Your task to perform on an android device: Set an alarm for 2pm Image 0: 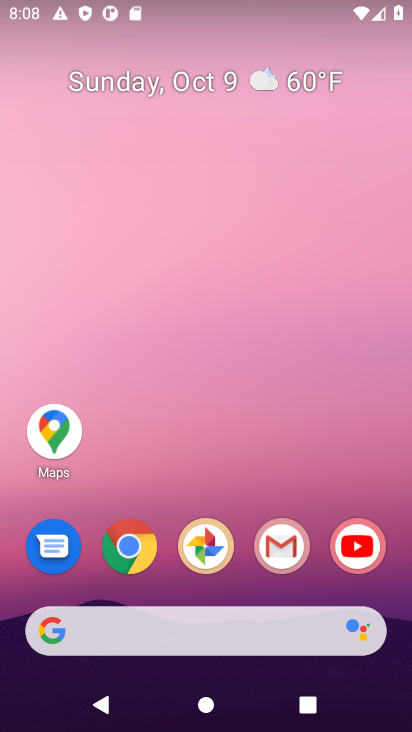
Step 0: click (127, 549)
Your task to perform on an android device: Set an alarm for 2pm Image 1: 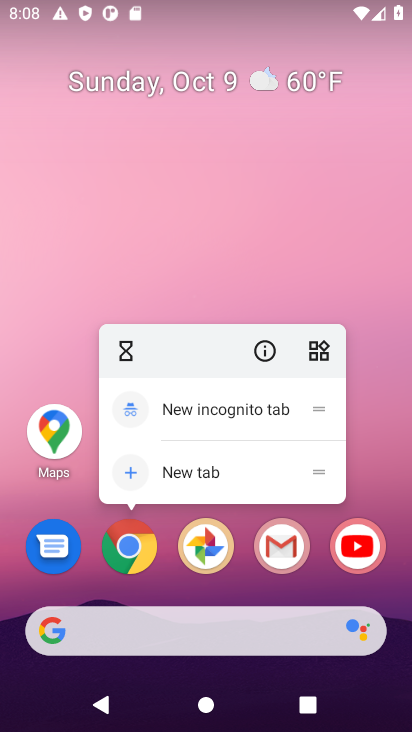
Step 1: click (395, 400)
Your task to perform on an android device: Set an alarm for 2pm Image 2: 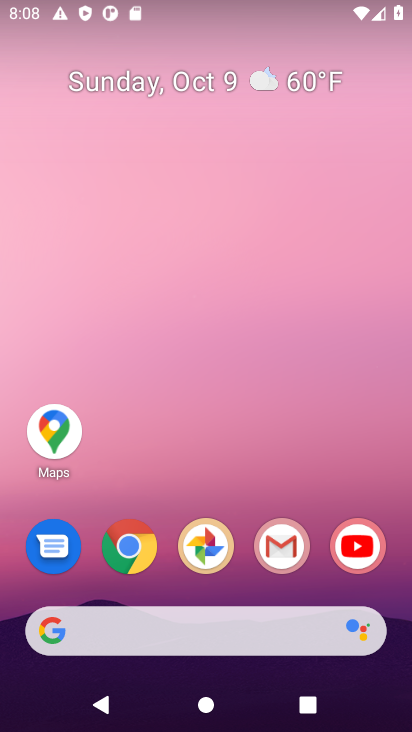
Step 2: drag from (234, 479) to (250, 60)
Your task to perform on an android device: Set an alarm for 2pm Image 3: 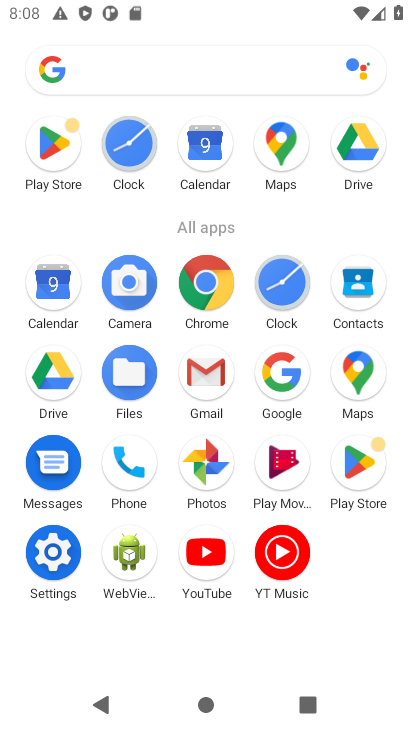
Step 3: click (117, 157)
Your task to perform on an android device: Set an alarm for 2pm Image 4: 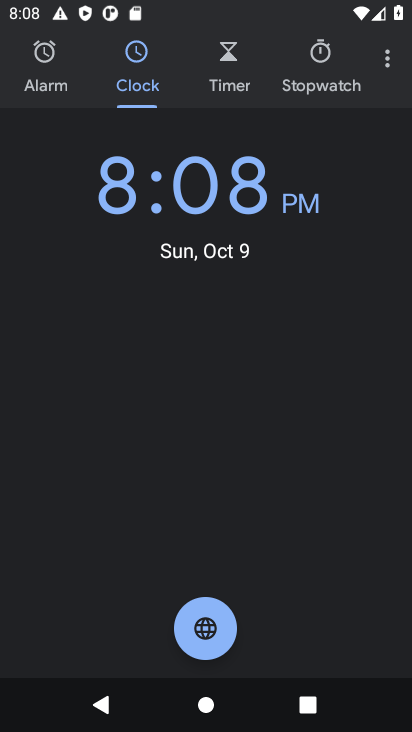
Step 4: click (64, 65)
Your task to perform on an android device: Set an alarm for 2pm Image 5: 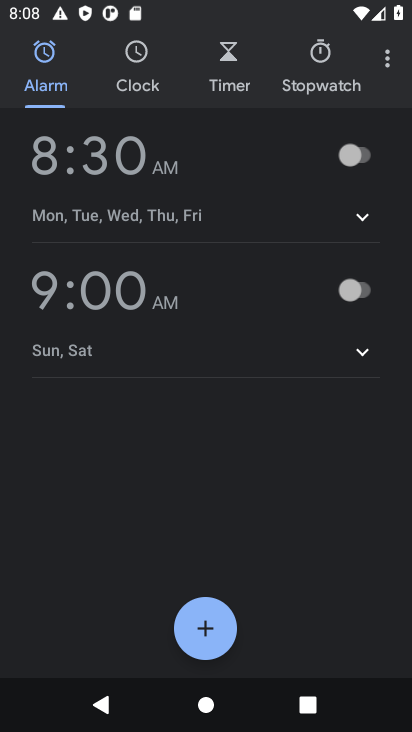
Step 5: click (42, 169)
Your task to perform on an android device: Set an alarm for 2pm Image 6: 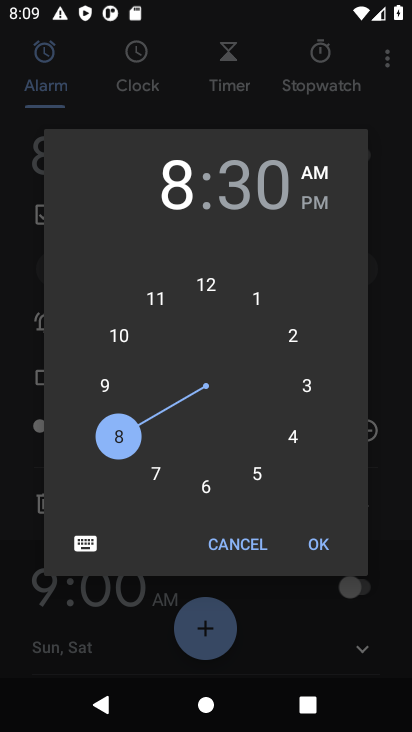
Step 6: click (288, 335)
Your task to perform on an android device: Set an alarm for 2pm Image 7: 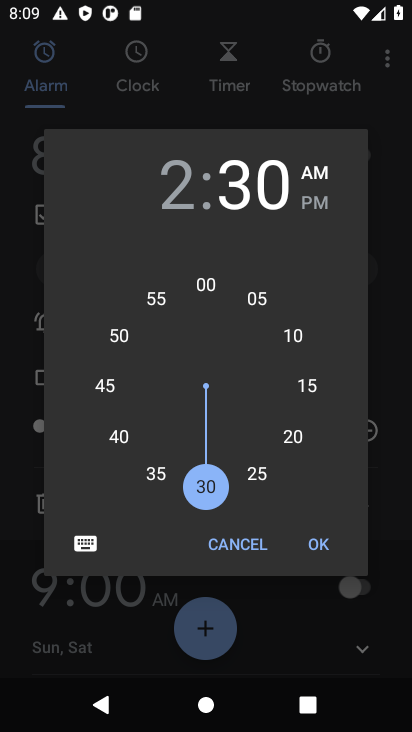
Step 7: click (204, 280)
Your task to perform on an android device: Set an alarm for 2pm Image 8: 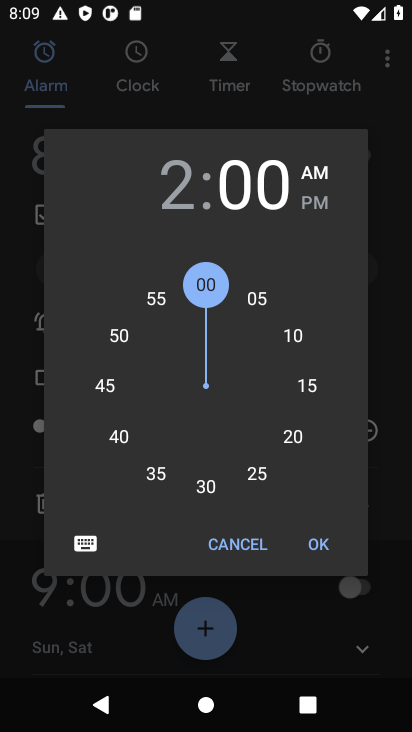
Step 8: click (314, 197)
Your task to perform on an android device: Set an alarm for 2pm Image 9: 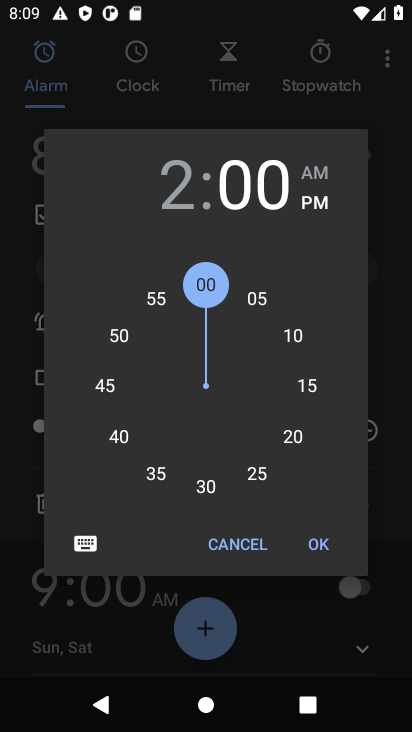
Step 9: click (167, 294)
Your task to perform on an android device: Set an alarm for 2pm Image 10: 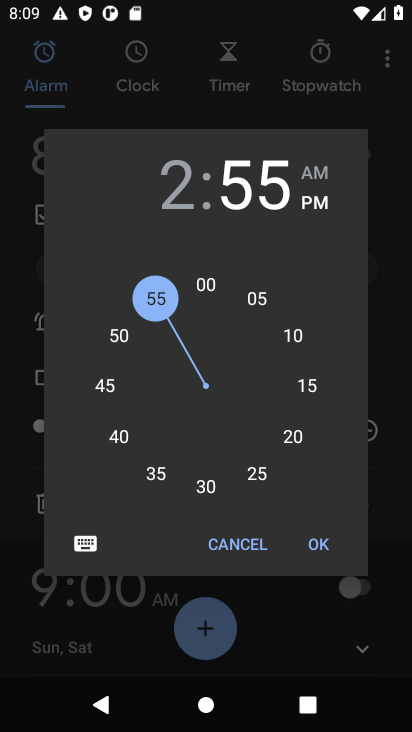
Step 10: click (189, 284)
Your task to perform on an android device: Set an alarm for 2pm Image 11: 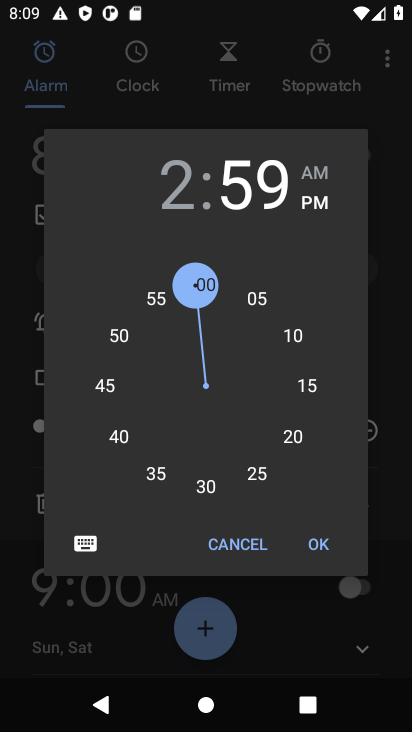
Step 11: click (315, 535)
Your task to perform on an android device: Set an alarm for 2pm Image 12: 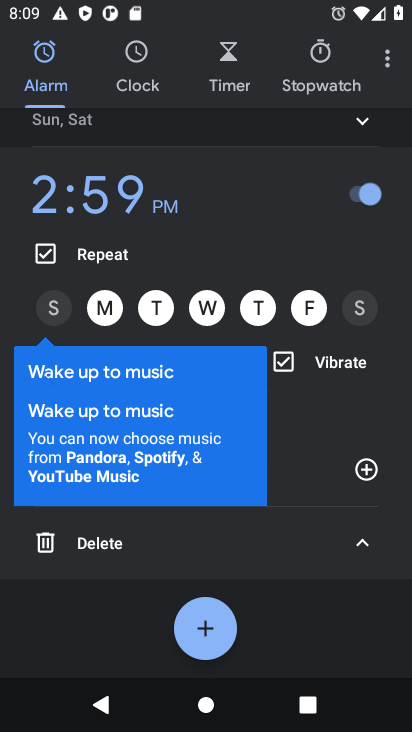
Step 12: click (296, 413)
Your task to perform on an android device: Set an alarm for 2pm Image 13: 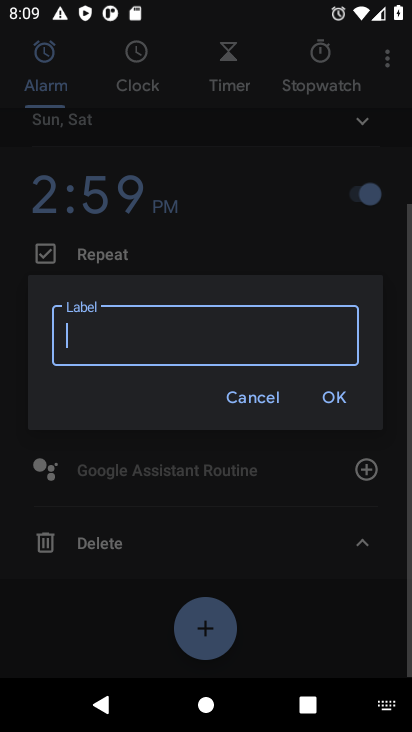
Step 13: click (262, 401)
Your task to perform on an android device: Set an alarm for 2pm Image 14: 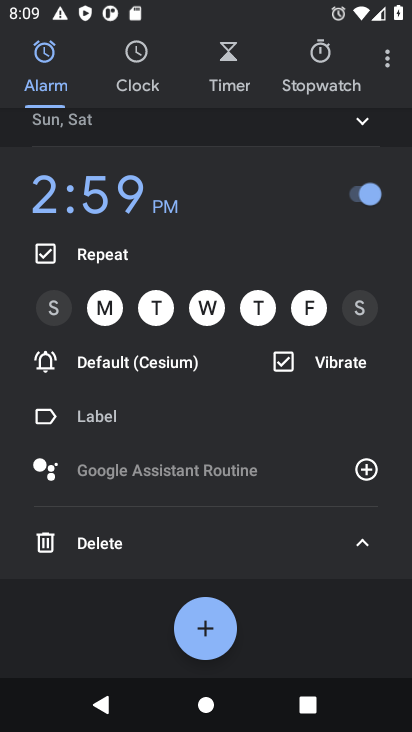
Step 14: click (368, 548)
Your task to perform on an android device: Set an alarm for 2pm Image 15: 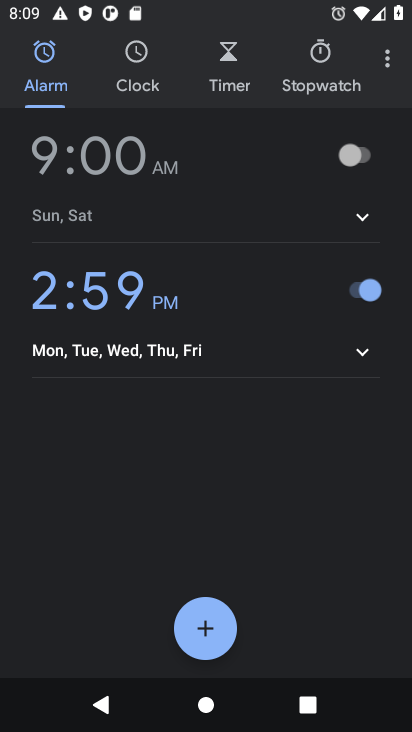
Step 15: click (336, 480)
Your task to perform on an android device: Set an alarm for 2pm Image 16: 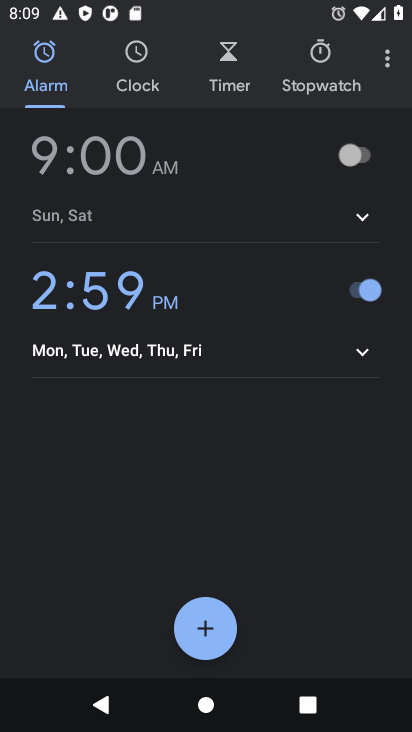
Step 16: click (87, 304)
Your task to perform on an android device: Set an alarm for 2pm Image 17: 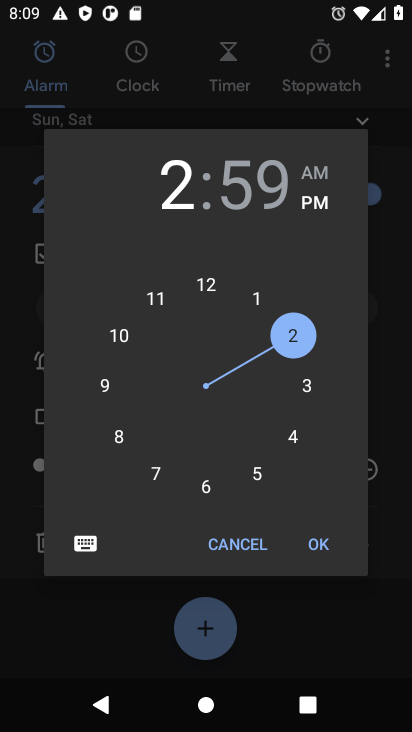
Step 17: click (317, 545)
Your task to perform on an android device: Set an alarm for 2pm Image 18: 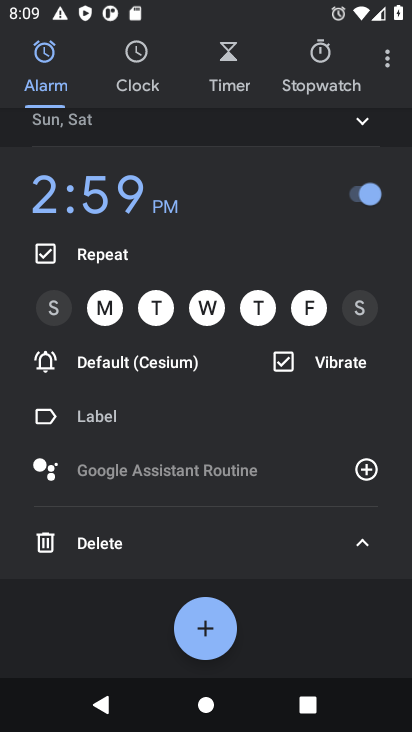
Step 18: click (119, 205)
Your task to perform on an android device: Set an alarm for 2pm Image 19: 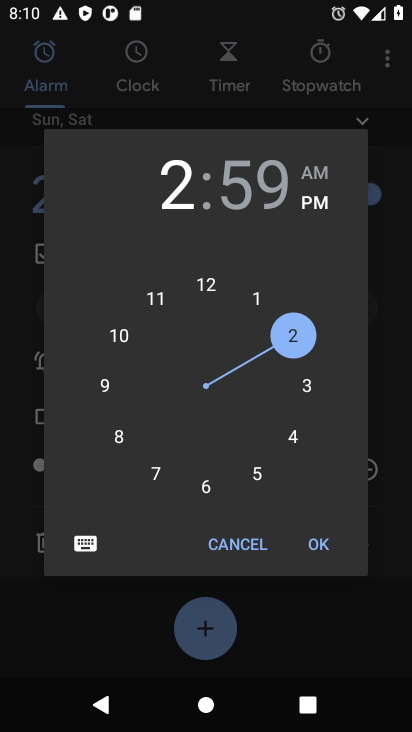
Step 19: click (253, 177)
Your task to perform on an android device: Set an alarm for 2pm Image 20: 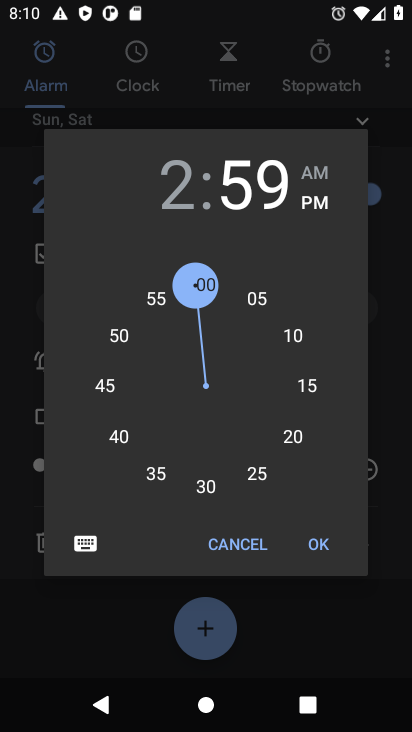
Step 20: click (207, 290)
Your task to perform on an android device: Set an alarm for 2pm Image 21: 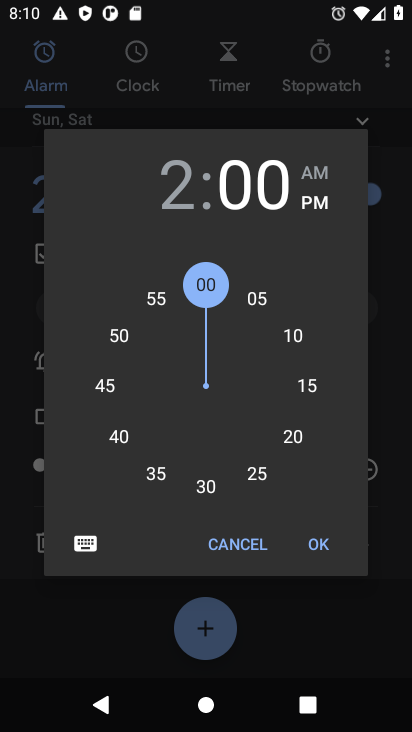
Step 21: click (313, 544)
Your task to perform on an android device: Set an alarm for 2pm Image 22: 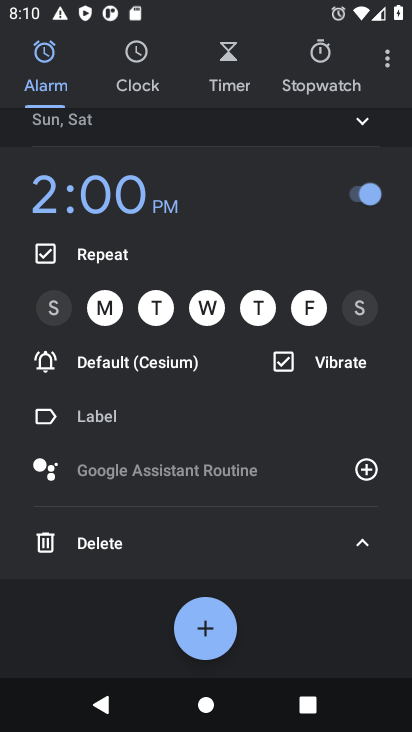
Step 22: task complete